Your task to perform on an android device: clear history in the chrome app Image 0: 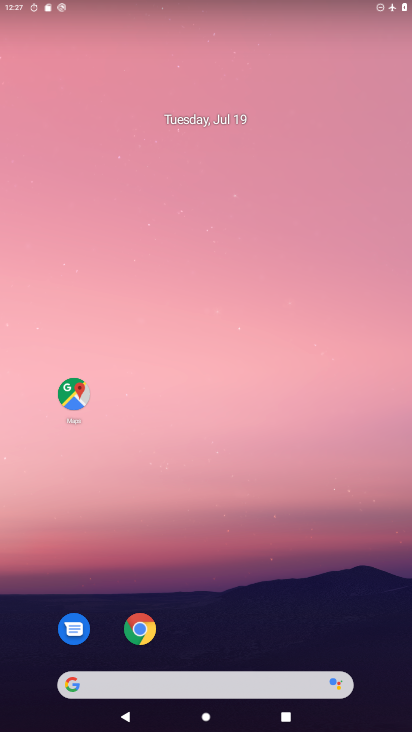
Step 0: drag from (303, 167) to (300, 29)
Your task to perform on an android device: clear history in the chrome app Image 1: 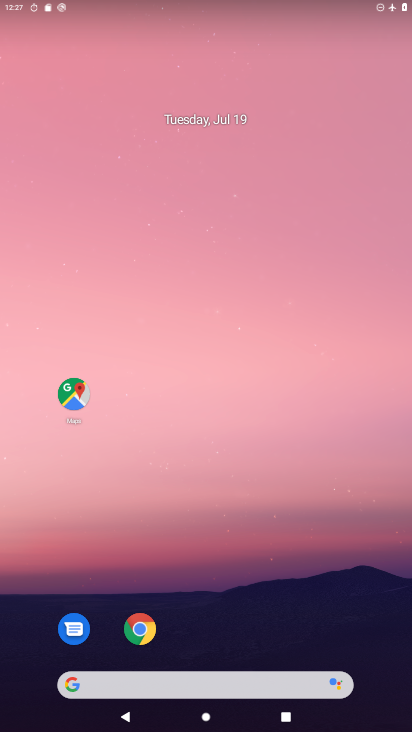
Step 1: drag from (240, 262) to (244, 76)
Your task to perform on an android device: clear history in the chrome app Image 2: 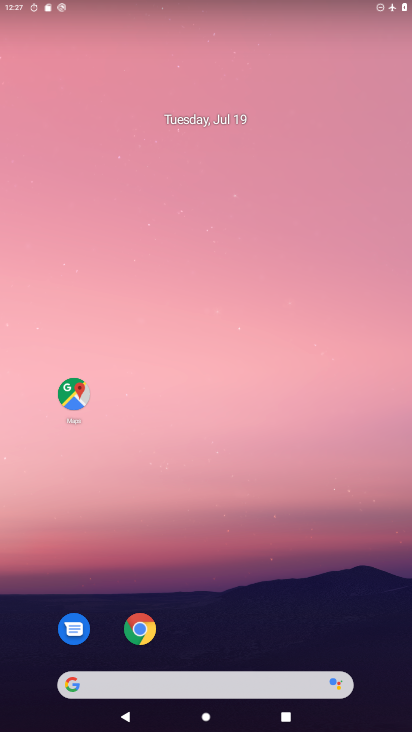
Step 2: drag from (254, 521) to (246, 80)
Your task to perform on an android device: clear history in the chrome app Image 3: 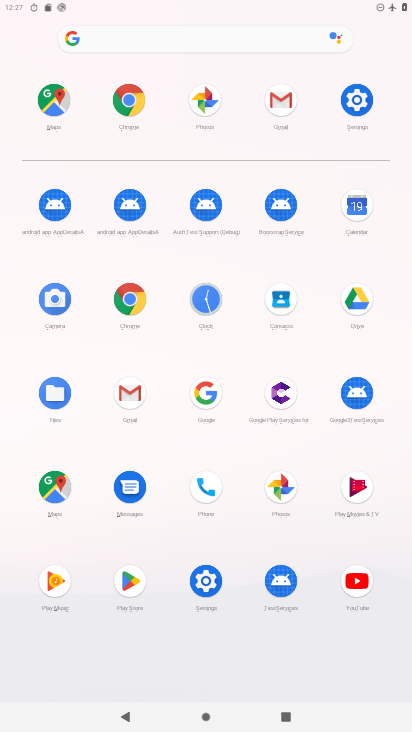
Step 3: click (130, 298)
Your task to perform on an android device: clear history in the chrome app Image 4: 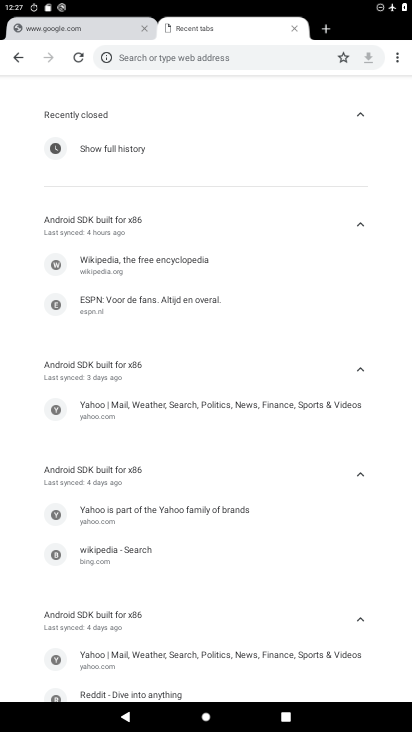
Step 4: task complete